Your task to perform on an android device: turn off data saver in the chrome app Image 0: 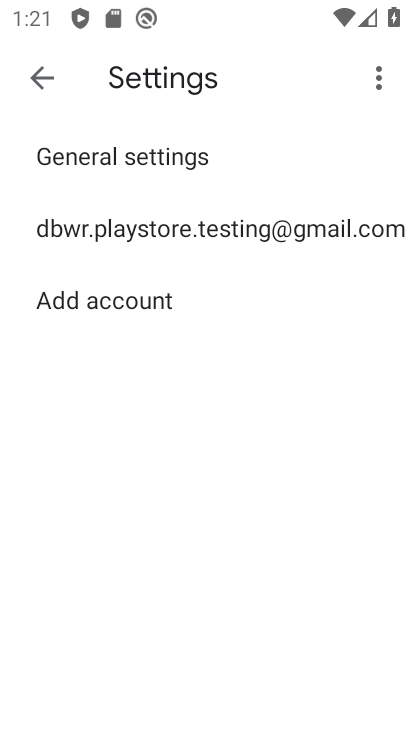
Step 0: click (33, 67)
Your task to perform on an android device: turn off data saver in the chrome app Image 1: 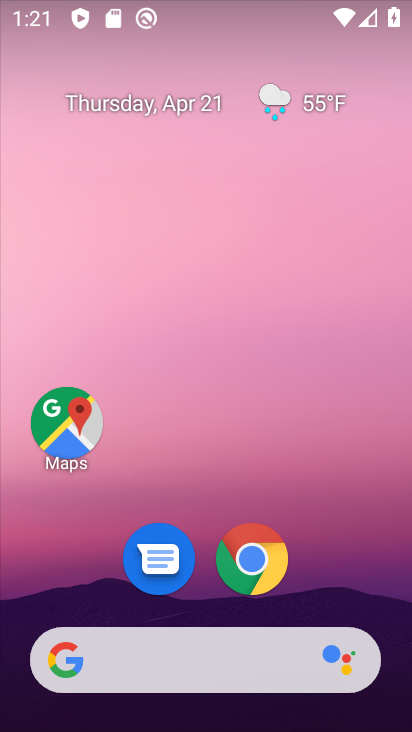
Step 1: click (246, 549)
Your task to perform on an android device: turn off data saver in the chrome app Image 2: 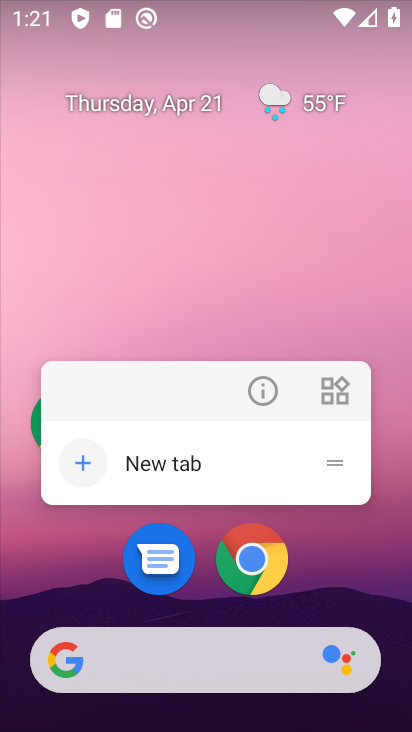
Step 2: click (246, 549)
Your task to perform on an android device: turn off data saver in the chrome app Image 3: 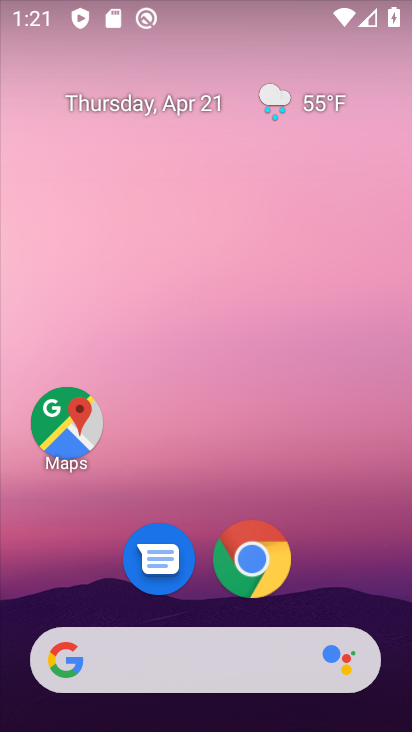
Step 3: click (246, 549)
Your task to perform on an android device: turn off data saver in the chrome app Image 4: 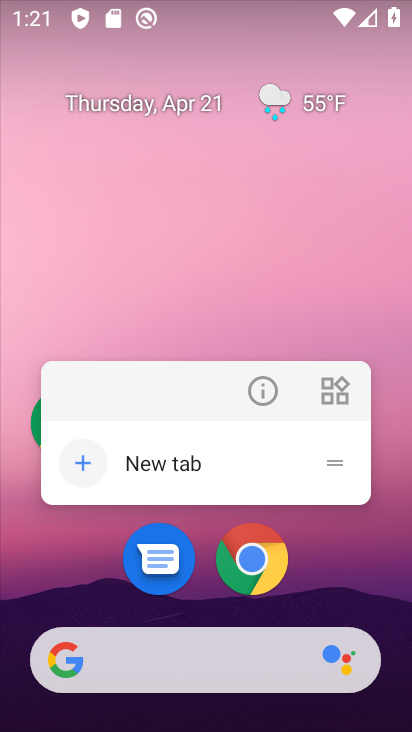
Step 4: click (246, 549)
Your task to perform on an android device: turn off data saver in the chrome app Image 5: 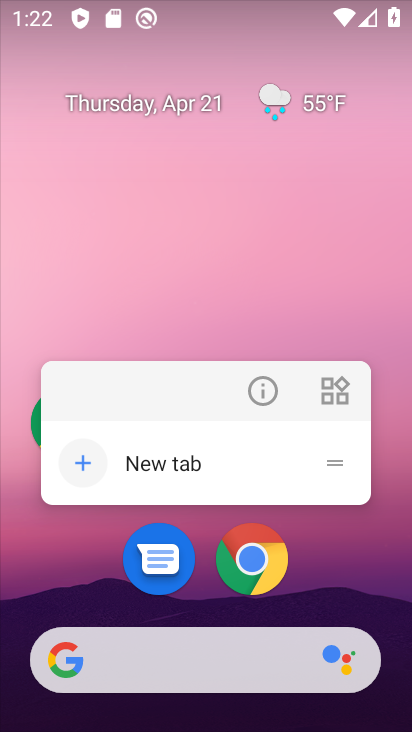
Step 5: click (262, 558)
Your task to perform on an android device: turn off data saver in the chrome app Image 6: 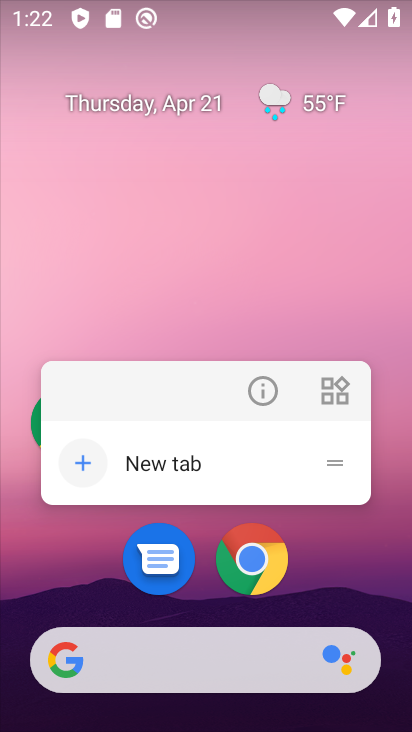
Step 6: click (240, 551)
Your task to perform on an android device: turn off data saver in the chrome app Image 7: 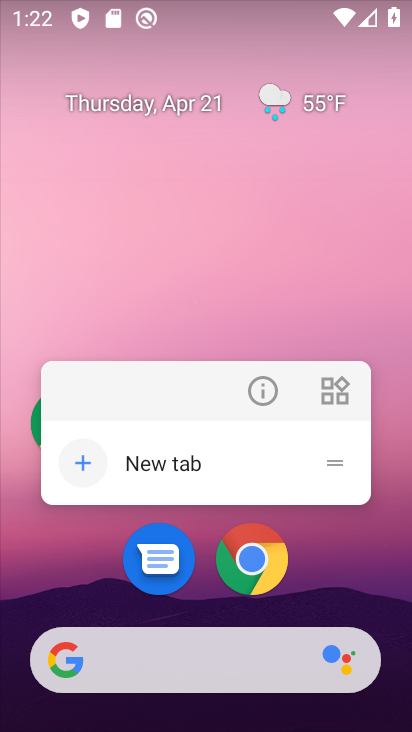
Step 7: click (240, 551)
Your task to perform on an android device: turn off data saver in the chrome app Image 8: 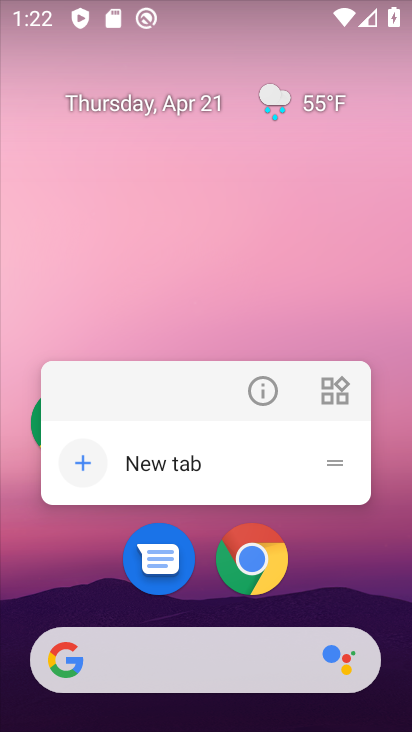
Step 8: click (231, 540)
Your task to perform on an android device: turn off data saver in the chrome app Image 9: 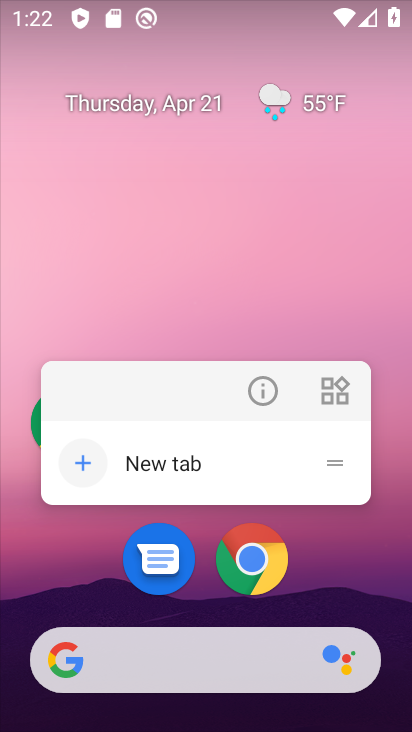
Step 9: click (231, 579)
Your task to perform on an android device: turn off data saver in the chrome app Image 10: 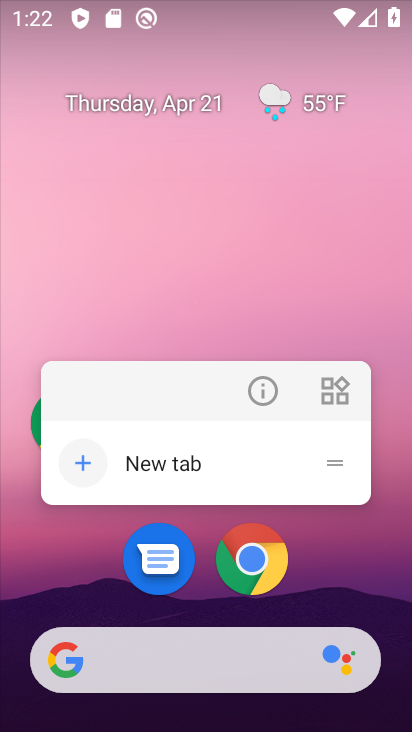
Step 10: click (251, 569)
Your task to perform on an android device: turn off data saver in the chrome app Image 11: 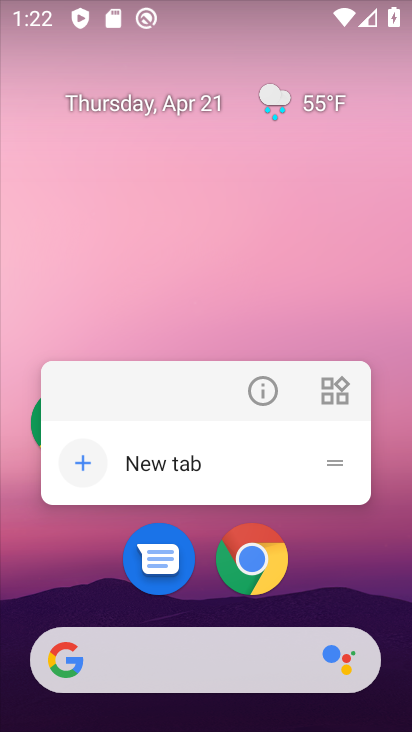
Step 11: click (242, 575)
Your task to perform on an android device: turn off data saver in the chrome app Image 12: 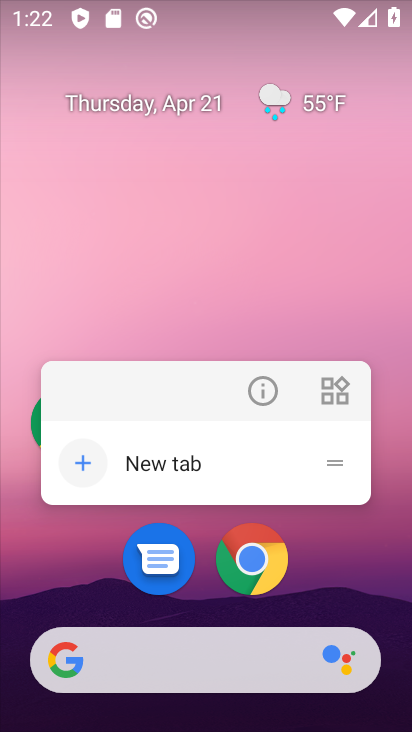
Step 12: click (257, 561)
Your task to perform on an android device: turn off data saver in the chrome app Image 13: 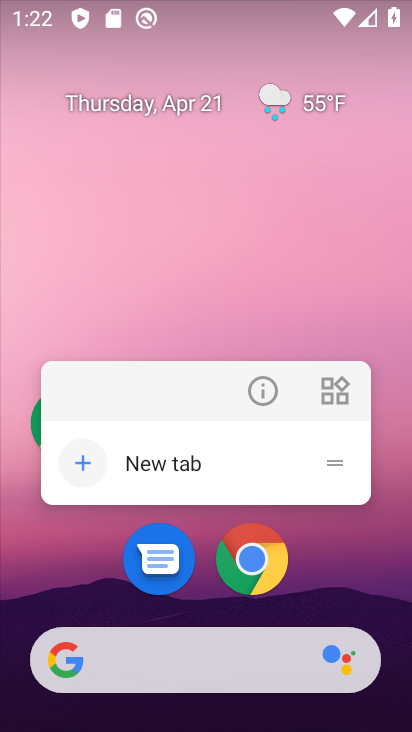
Step 13: click (257, 561)
Your task to perform on an android device: turn off data saver in the chrome app Image 14: 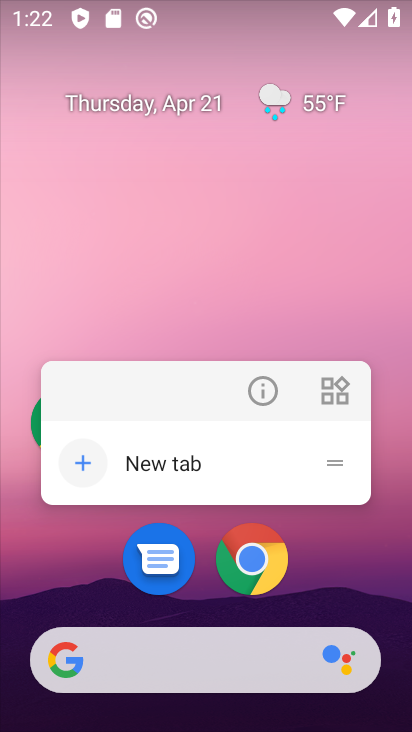
Step 14: click (258, 561)
Your task to perform on an android device: turn off data saver in the chrome app Image 15: 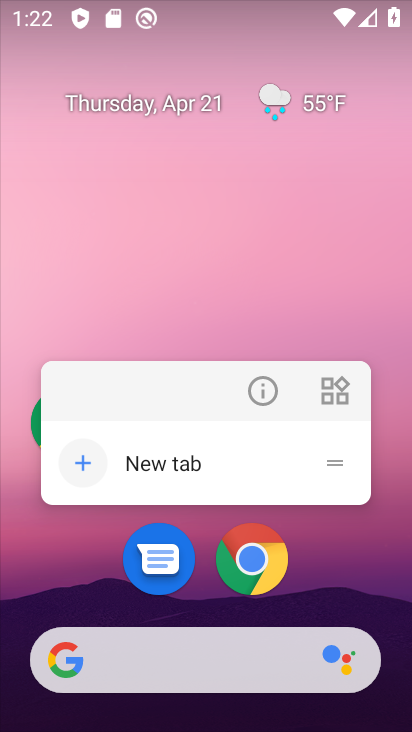
Step 15: click (258, 560)
Your task to perform on an android device: turn off data saver in the chrome app Image 16: 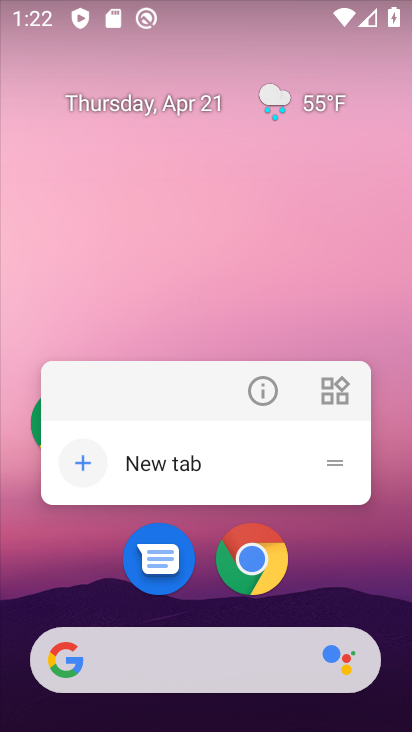
Step 16: drag from (295, 491) to (391, 52)
Your task to perform on an android device: turn off data saver in the chrome app Image 17: 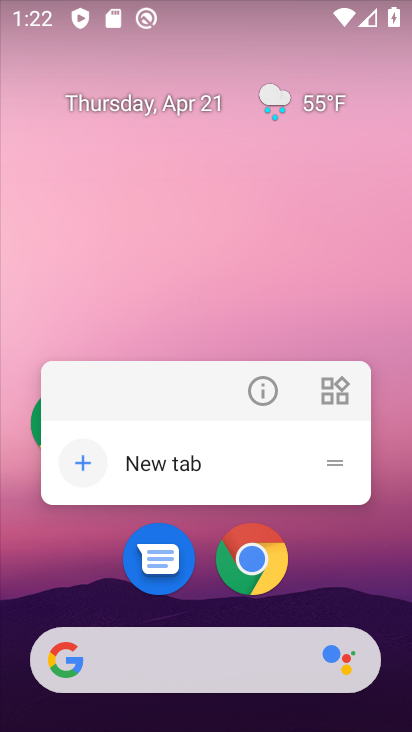
Step 17: drag from (200, 590) to (295, 109)
Your task to perform on an android device: turn off data saver in the chrome app Image 18: 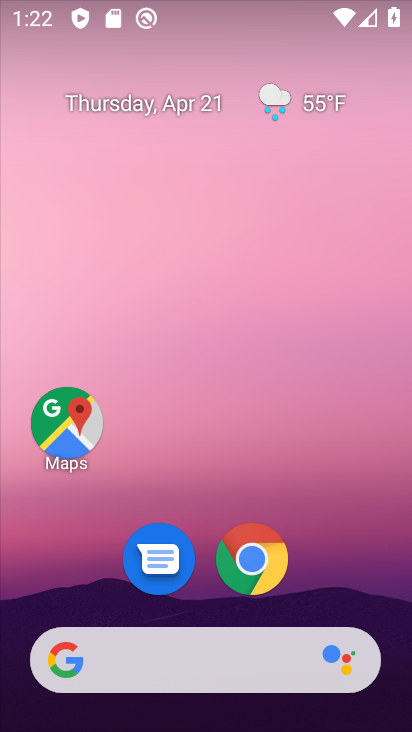
Step 18: drag from (208, 621) to (330, 60)
Your task to perform on an android device: turn off data saver in the chrome app Image 19: 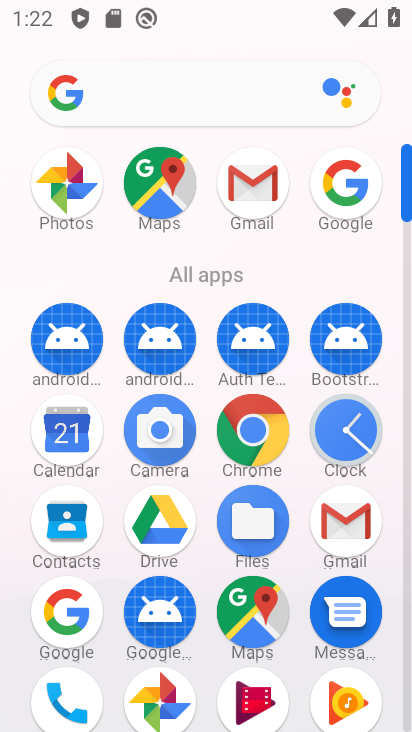
Step 19: click (258, 421)
Your task to perform on an android device: turn off data saver in the chrome app Image 20: 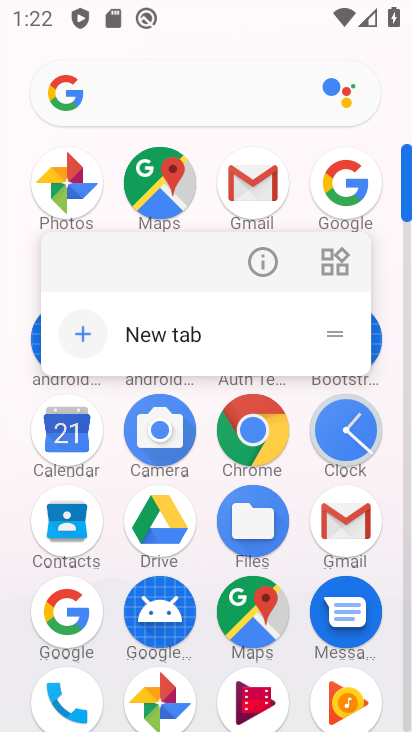
Step 20: click (258, 421)
Your task to perform on an android device: turn off data saver in the chrome app Image 21: 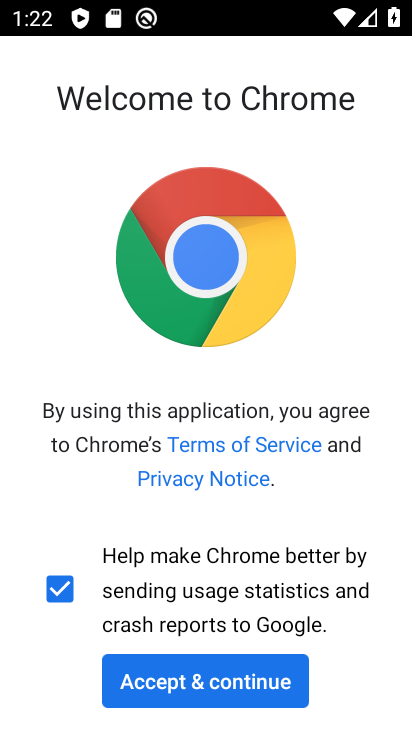
Step 21: drag from (189, 524) to (300, 126)
Your task to perform on an android device: turn off data saver in the chrome app Image 22: 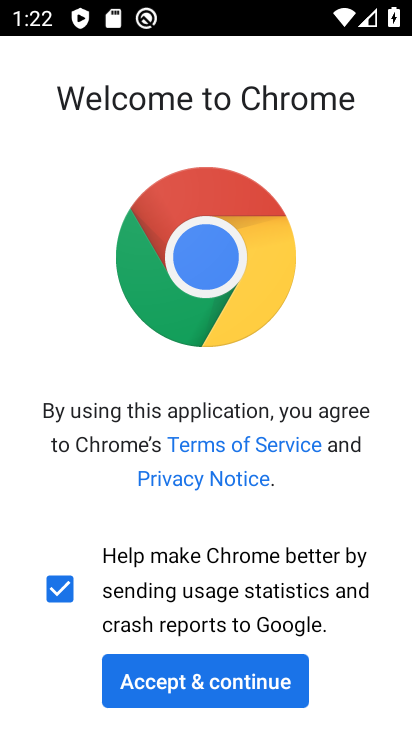
Step 22: drag from (148, 584) to (306, 239)
Your task to perform on an android device: turn off data saver in the chrome app Image 23: 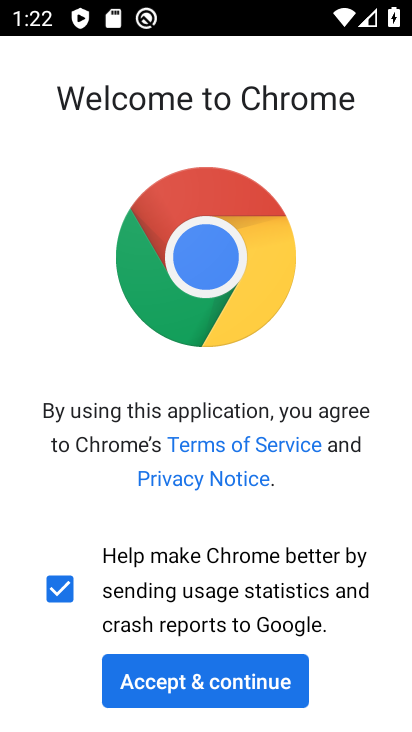
Step 23: drag from (321, 520) to (321, 317)
Your task to perform on an android device: turn off data saver in the chrome app Image 24: 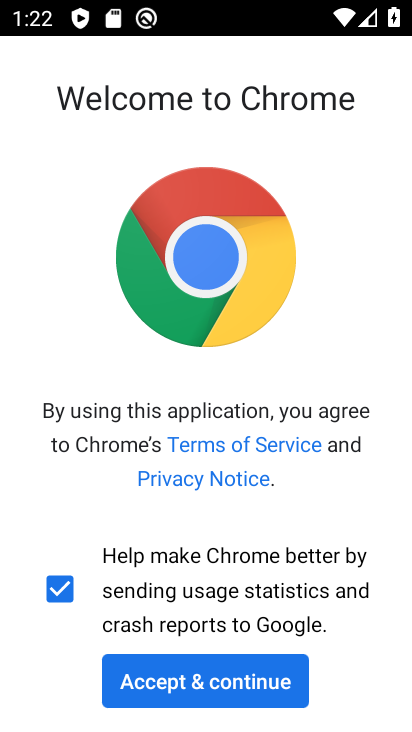
Step 24: click (234, 681)
Your task to perform on an android device: turn off data saver in the chrome app Image 25: 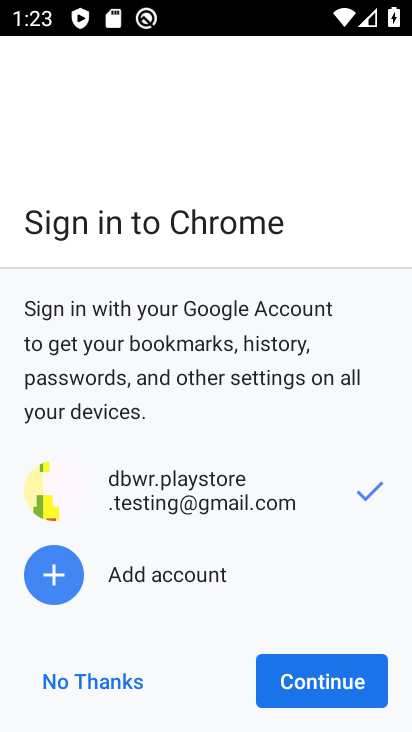
Step 25: drag from (294, 588) to (356, 234)
Your task to perform on an android device: turn off data saver in the chrome app Image 26: 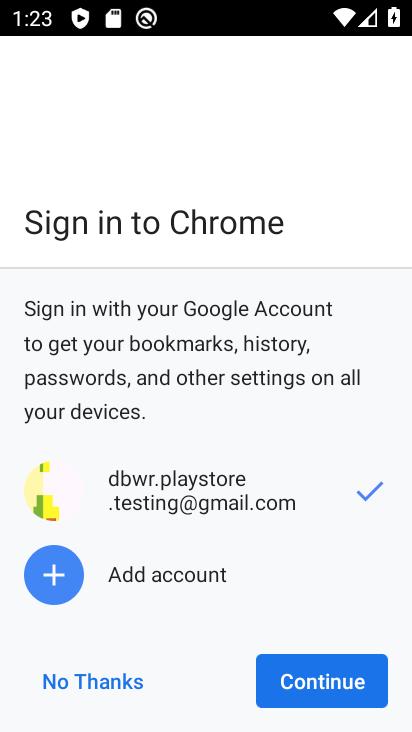
Step 26: click (333, 687)
Your task to perform on an android device: turn off data saver in the chrome app Image 27: 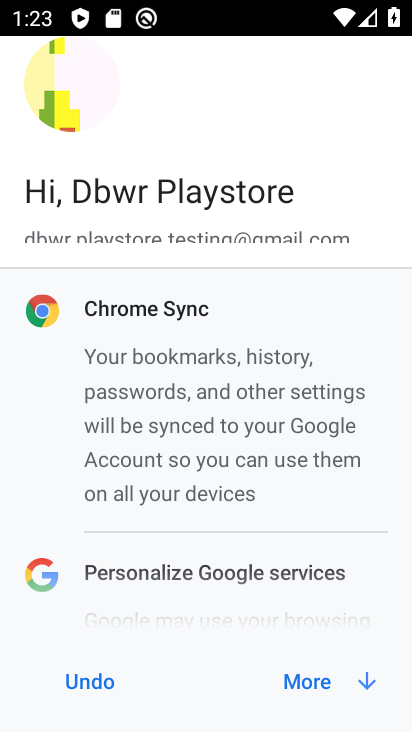
Step 27: drag from (274, 651) to (355, 241)
Your task to perform on an android device: turn off data saver in the chrome app Image 28: 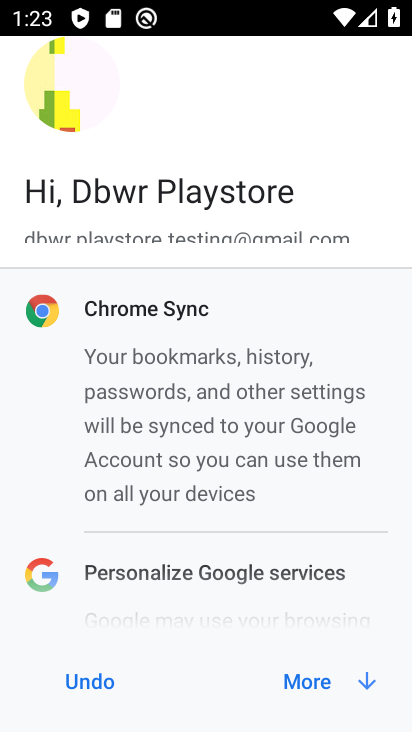
Step 28: click (356, 477)
Your task to perform on an android device: turn off data saver in the chrome app Image 29: 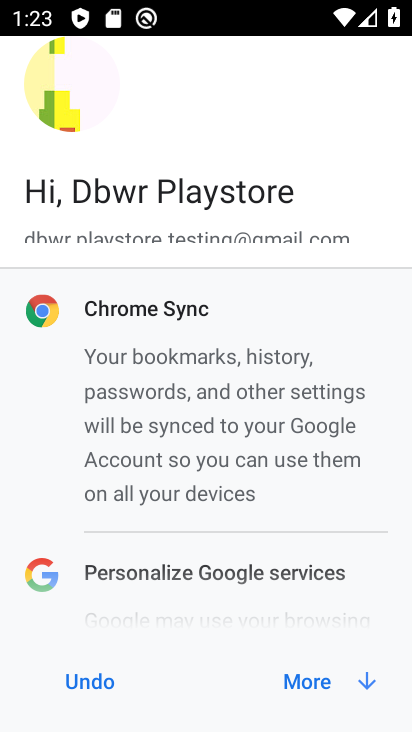
Step 29: click (291, 681)
Your task to perform on an android device: turn off data saver in the chrome app Image 30: 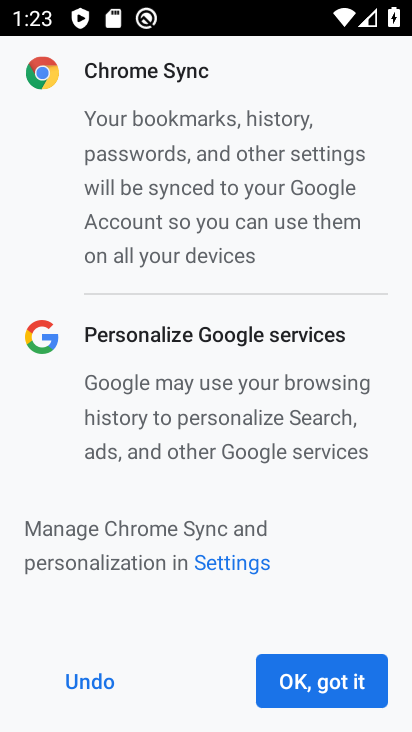
Step 30: drag from (253, 588) to (301, 206)
Your task to perform on an android device: turn off data saver in the chrome app Image 31: 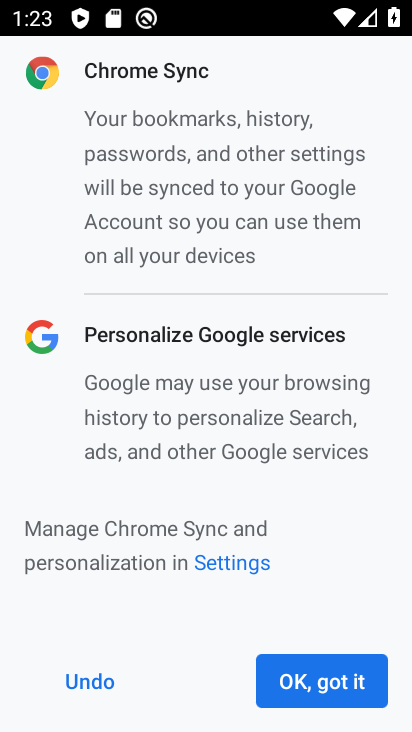
Step 31: click (305, 700)
Your task to perform on an android device: turn off data saver in the chrome app Image 32: 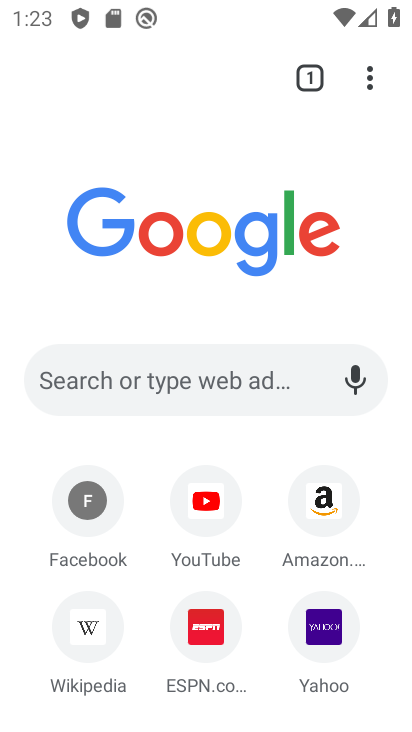
Step 32: click (371, 85)
Your task to perform on an android device: turn off data saver in the chrome app Image 33: 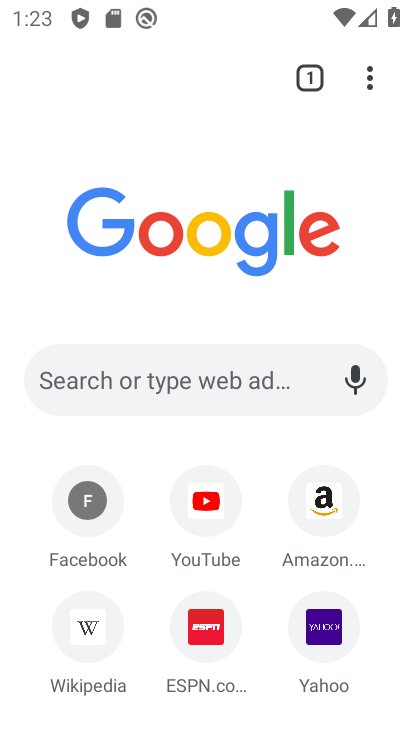
Step 33: click (371, 77)
Your task to perform on an android device: turn off data saver in the chrome app Image 34: 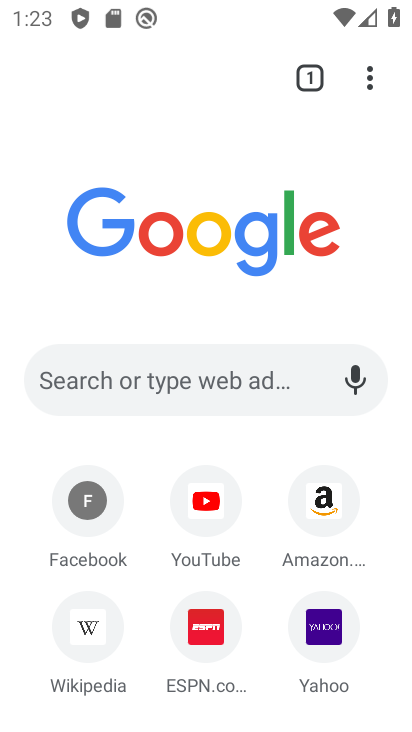
Step 34: click (371, 77)
Your task to perform on an android device: turn off data saver in the chrome app Image 35: 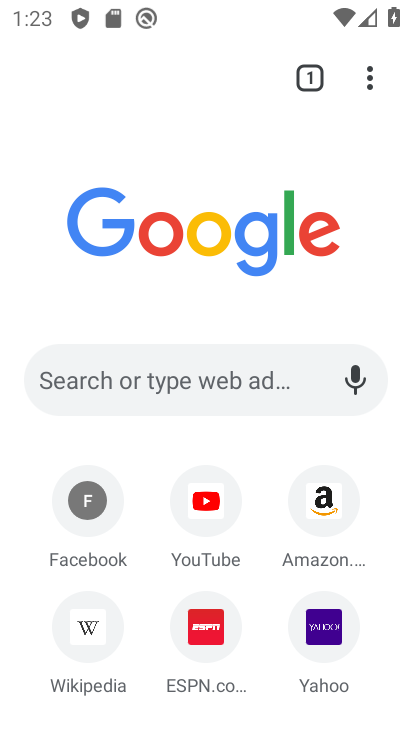
Step 35: click (371, 77)
Your task to perform on an android device: turn off data saver in the chrome app Image 36: 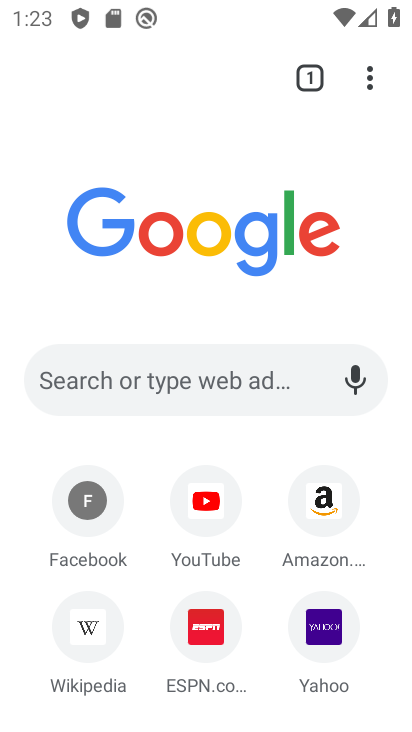
Step 36: click (371, 77)
Your task to perform on an android device: turn off data saver in the chrome app Image 37: 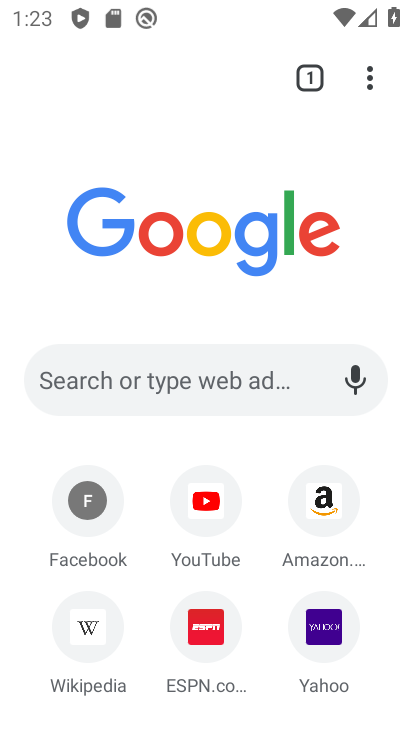
Step 37: click (371, 77)
Your task to perform on an android device: turn off data saver in the chrome app Image 38: 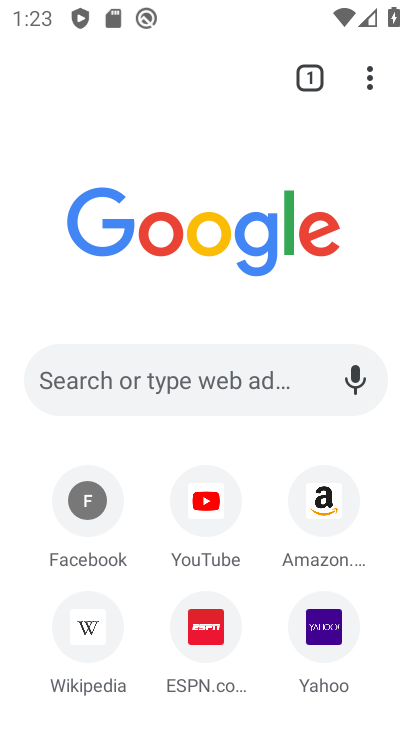
Step 38: click (371, 77)
Your task to perform on an android device: turn off data saver in the chrome app Image 39: 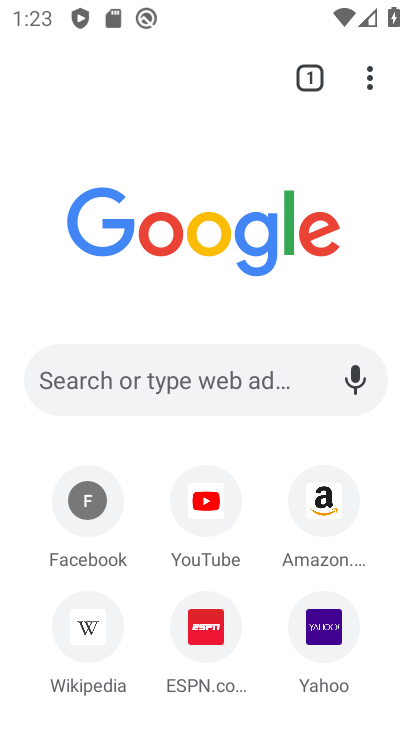
Step 39: task complete